Your task to perform on an android device: open wifi settings Image 0: 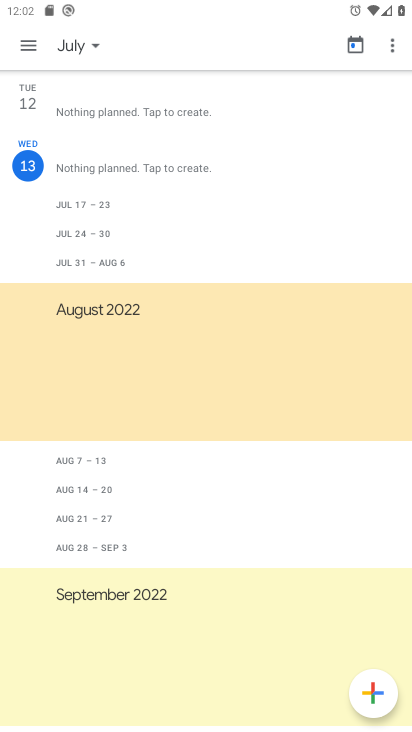
Step 0: press home button
Your task to perform on an android device: open wifi settings Image 1: 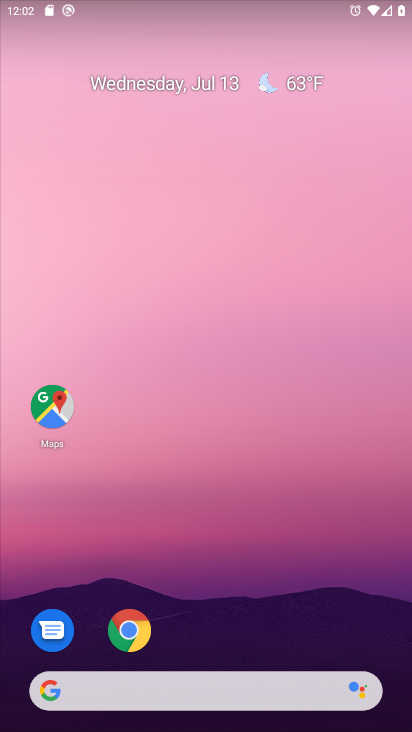
Step 1: drag from (199, 695) to (180, 509)
Your task to perform on an android device: open wifi settings Image 2: 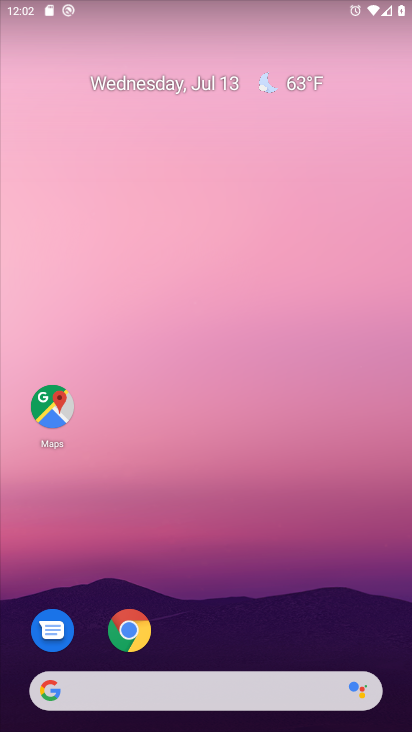
Step 2: drag from (194, 694) to (118, 242)
Your task to perform on an android device: open wifi settings Image 3: 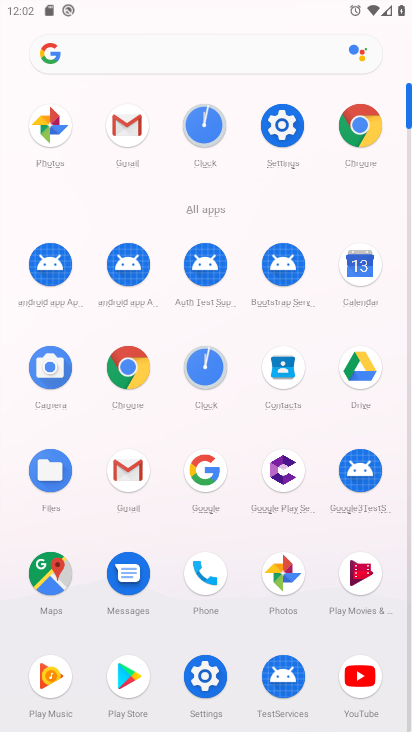
Step 3: click (289, 127)
Your task to perform on an android device: open wifi settings Image 4: 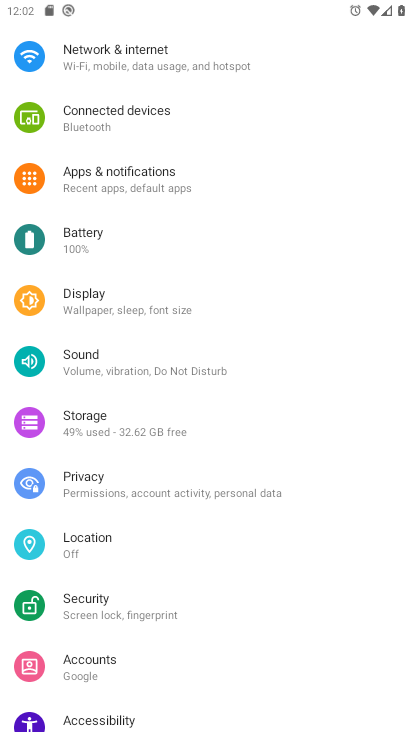
Step 4: drag from (196, 89) to (189, 335)
Your task to perform on an android device: open wifi settings Image 5: 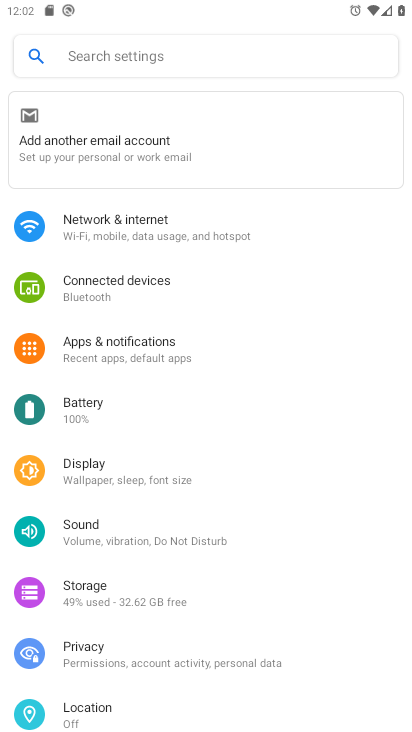
Step 5: click (134, 235)
Your task to perform on an android device: open wifi settings Image 6: 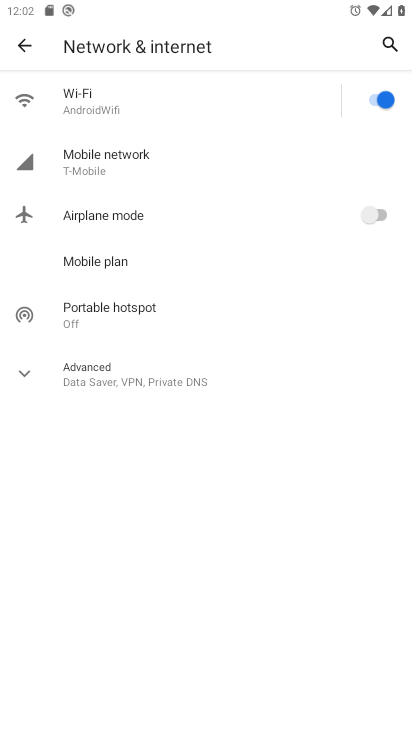
Step 6: click (128, 102)
Your task to perform on an android device: open wifi settings Image 7: 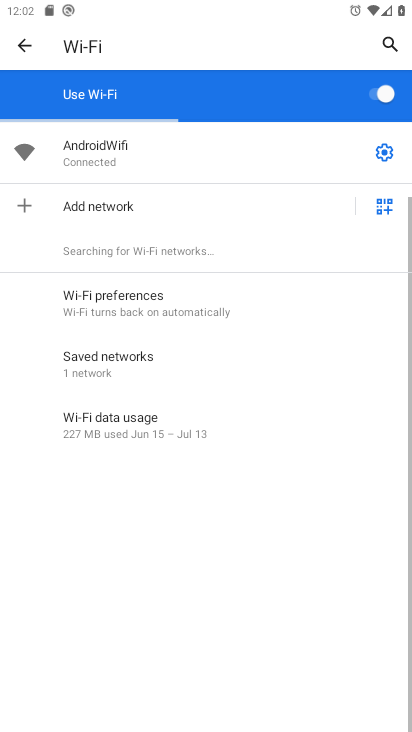
Step 7: task complete